Your task to perform on an android device: Open Google Chrome and open the bookmarks view Image 0: 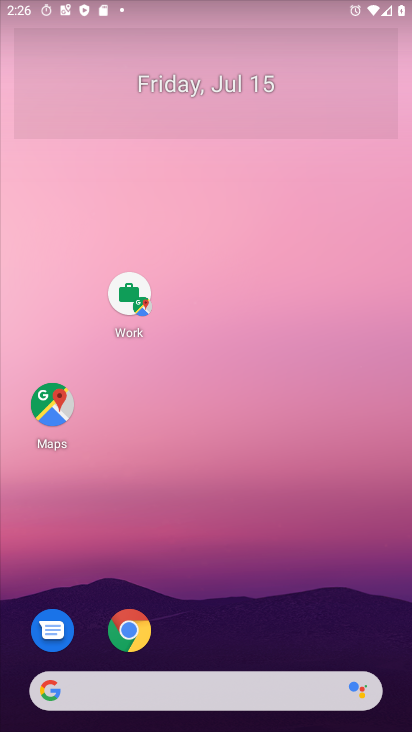
Step 0: click (226, 622)
Your task to perform on an android device: Open Google Chrome and open the bookmarks view Image 1: 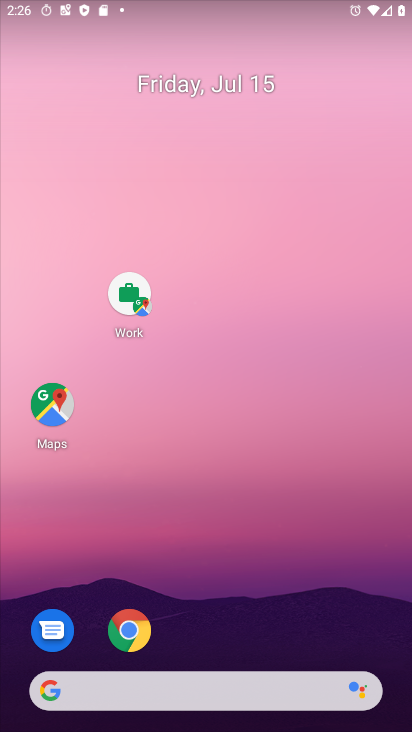
Step 1: click (126, 631)
Your task to perform on an android device: Open Google Chrome and open the bookmarks view Image 2: 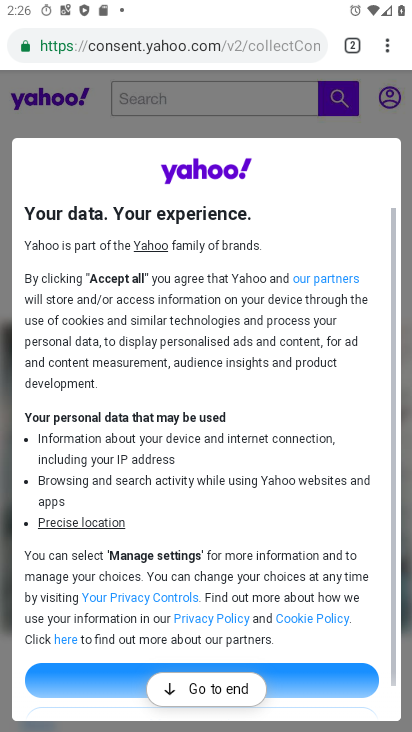
Step 2: click (390, 48)
Your task to perform on an android device: Open Google Chrome and open the bookmarks view Image 3: 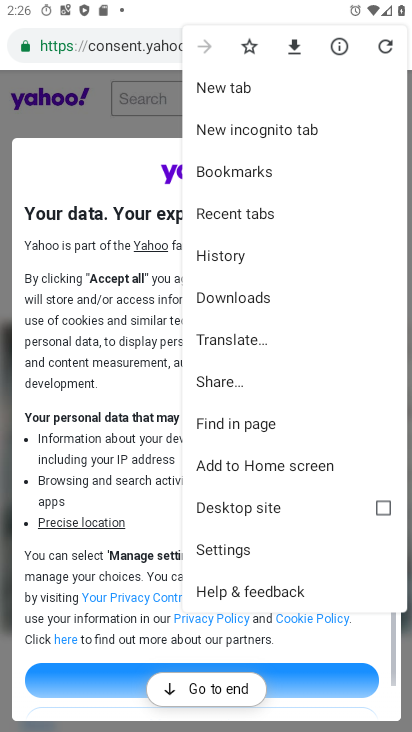
Step 3: click (292, 177)
Your task to perform on an android device: Open Google Chrome and open the bookmarks view Image 4: 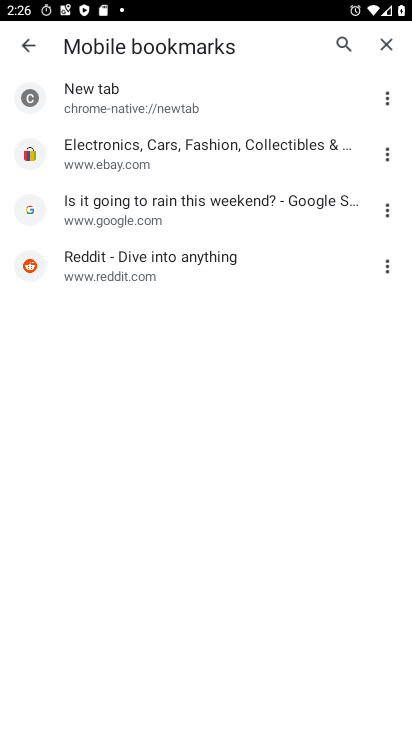
Step 4: task complete